Your task to perform on an android device: turn off sleep mode Image 0: 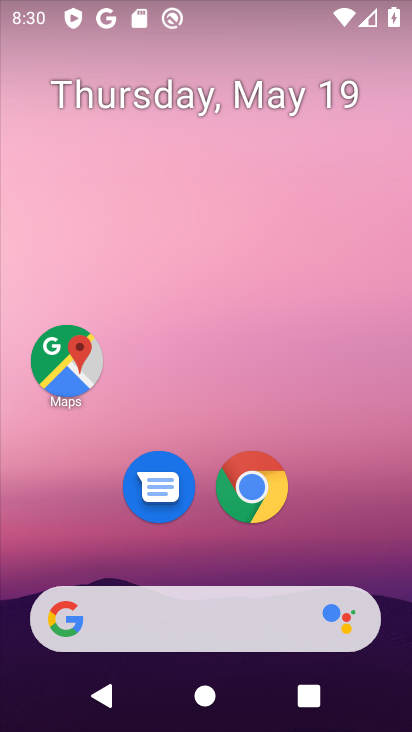
Step 0: drag from (247, 544) to (347, 17)
Your task to perform on an android device: turn off sleep mode Image 1: 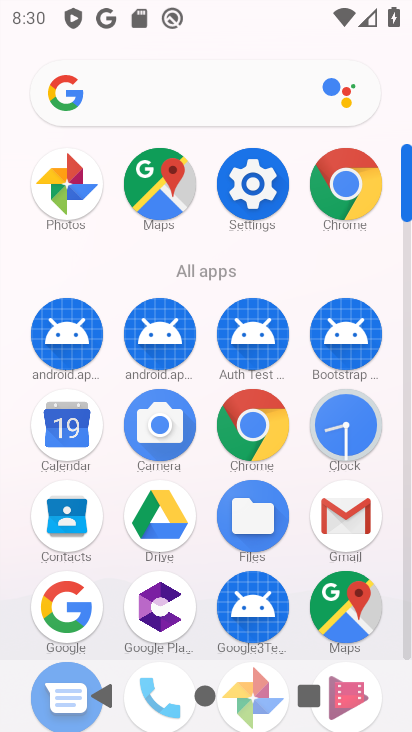
Step 1: click (256, 171)
Your task to perform on an android device: turn off sleep mode Image 2: 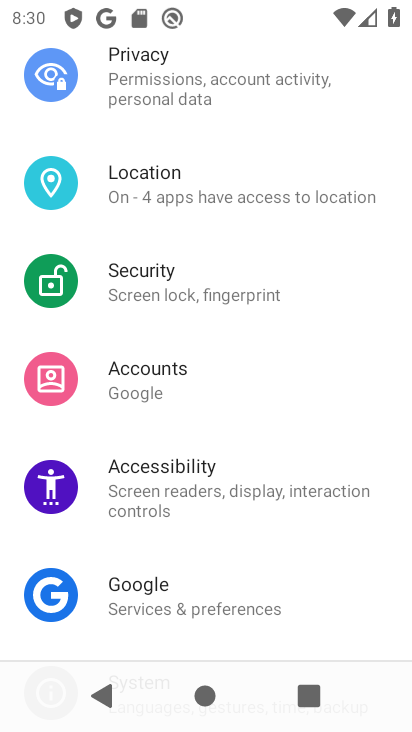
Step 2: drag from (223, 77) to (227, 498)
Your task to perform on an android device: turn off sleep mode Image 3: 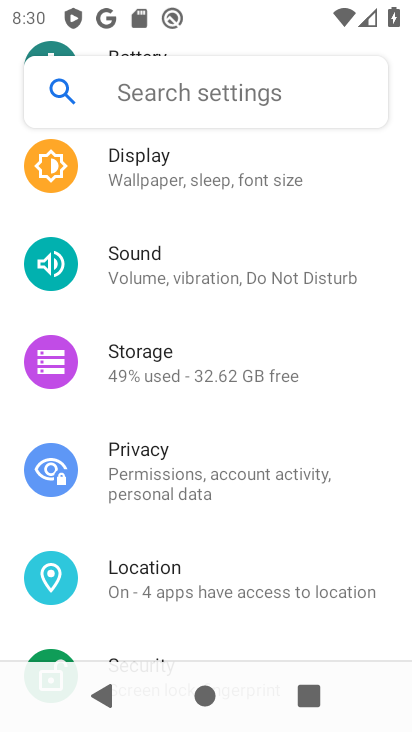
Step 3: click (184, 170)
Your task to perform on an android device: turn off sleep mode Image 4: 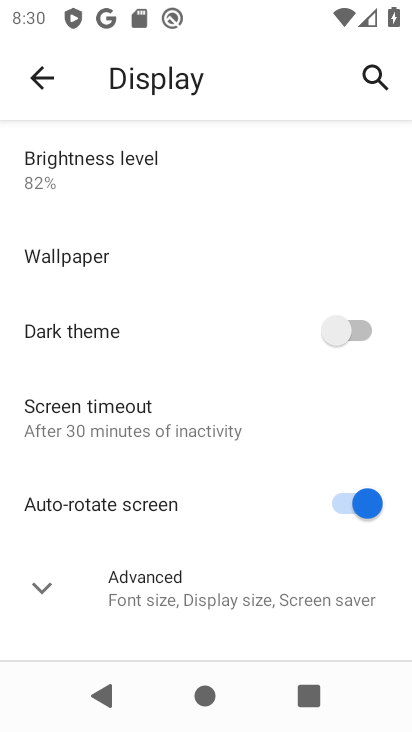
Step 4: task complete